Your task to perform on an android device: Go to accessibility settings Image 0: 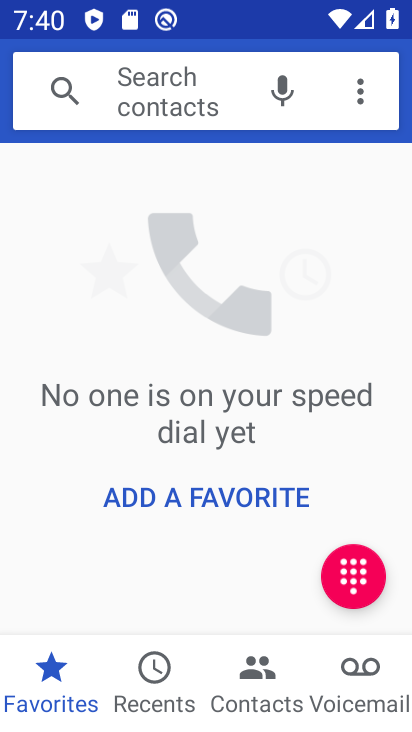
Step 0: press home button
Your task to perform on an android device: Go to accessibility settings Image 1: 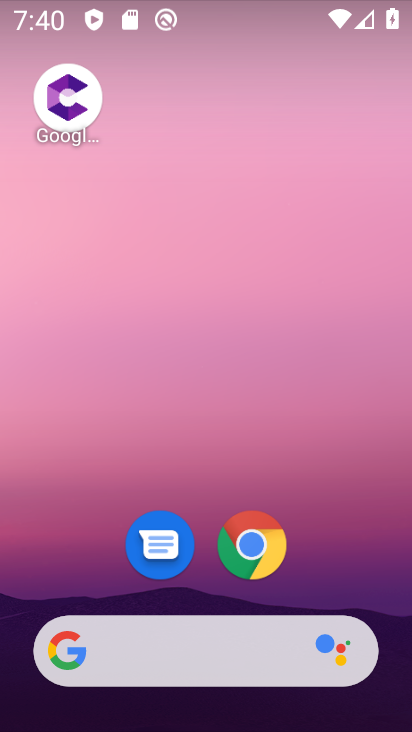
Step 1: drag from (321, 494) to (292, 181)
Your task to perform on an android device: Go to accessibility settings Image 2: 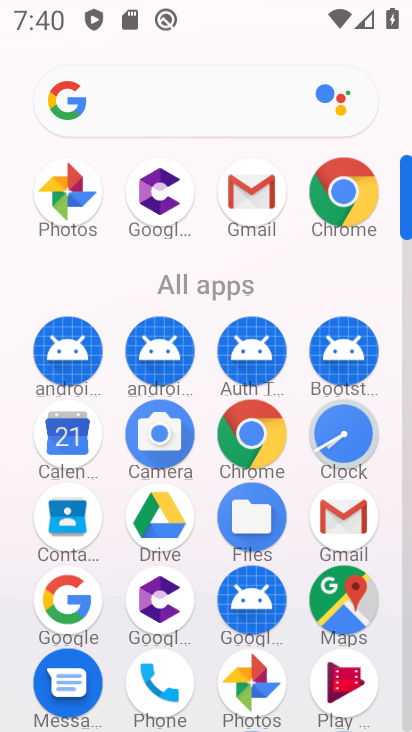
Step 2: drag from (208, 631) to (264, 239)
Your task to perform on an android device: Go to accessibility settings Image 3: 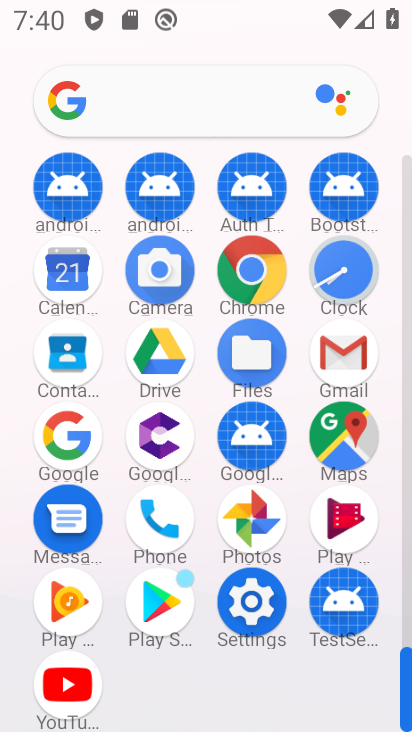
Step 3: click (245, 589)
Your task to perform on an android device: Go to accessibility settings Image 4: 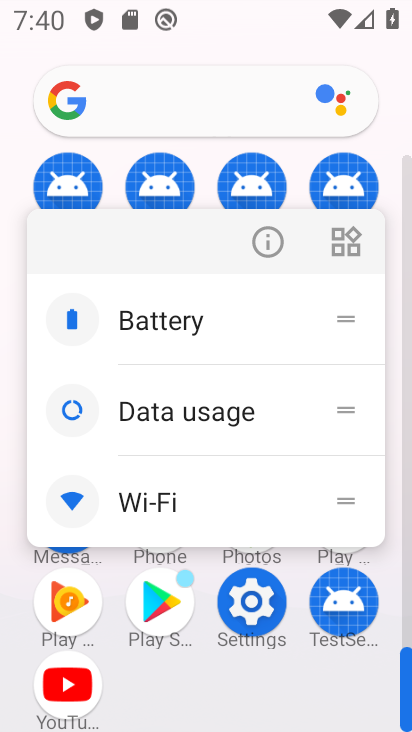
Step 4: click (246, 590)
Your task to perform on an android device: Go to accessibility settings Image 5: 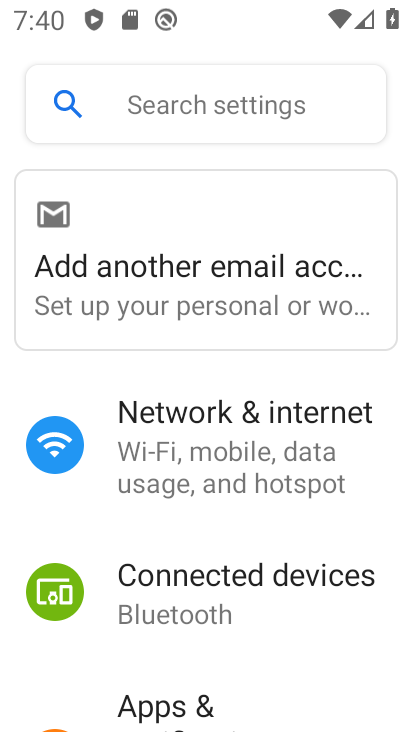
Step 5: drag from (211, 677) to (314, 182)
Your task to perform on an android device: Go to accessibility settings Image 6: 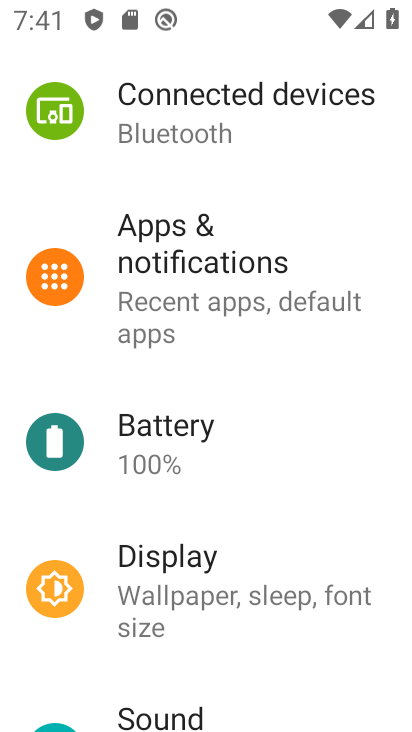
Step 6: drag from (304, 429) to (339, 32)
Your task to perform on an android device: Go to accessibility settings Image 7: 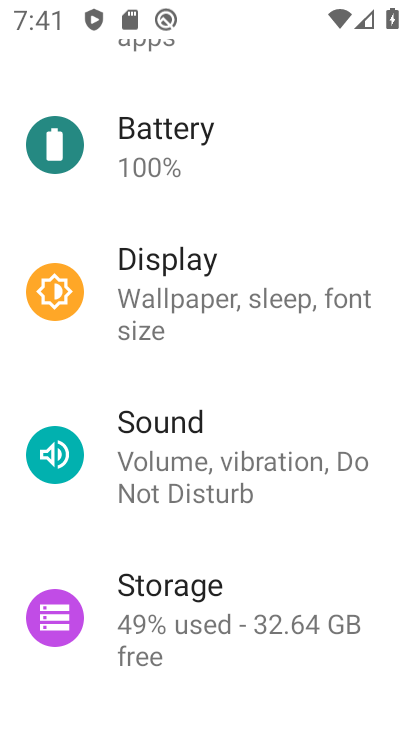
Step 7: drag from (259, 660) to (318, 103)
Your task to perform on an android device: Go to accessibility settings Image 8: 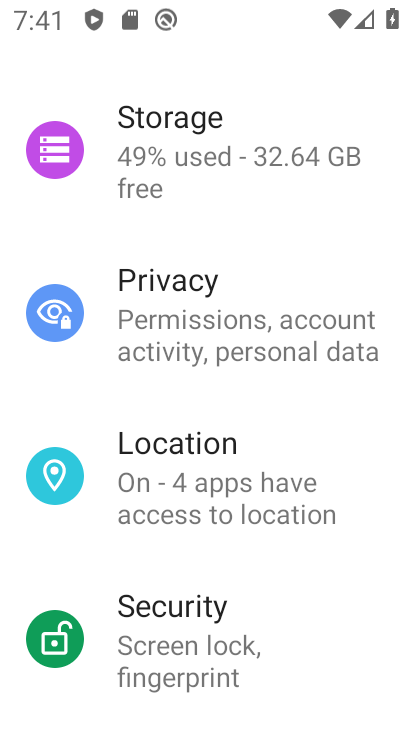
Step 8: drag from (222, 578) to (298, 39)
Your task to perform on an android device: Go to accessibility settings Image 9: 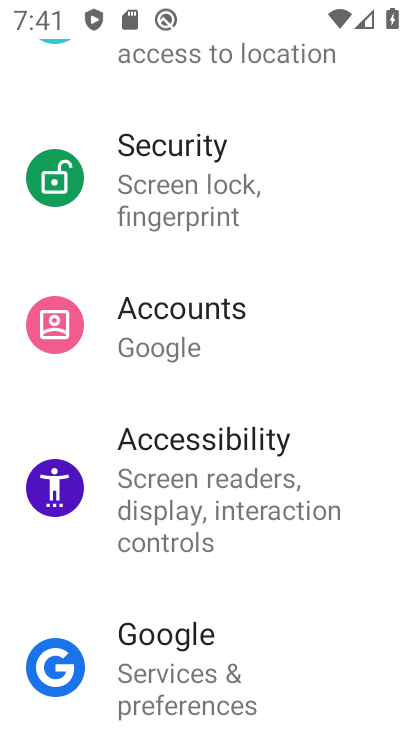
Step 9: click (244, 459)
Your task to perform on an android device: Go to accessibility settings Image 10: 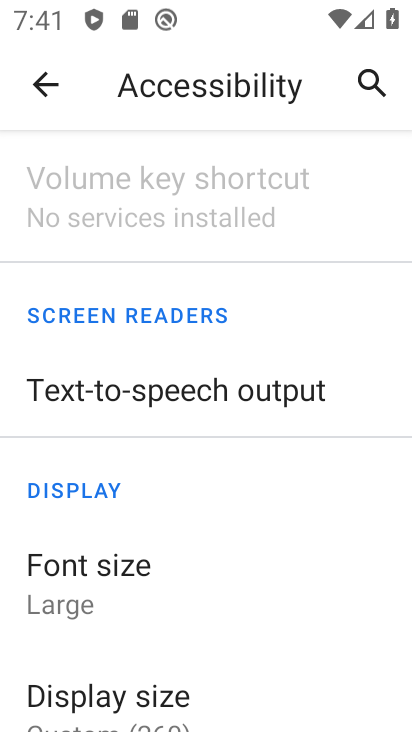
Step 10: task complete